Your task to perform on an android device: Open Chrome and go to the settings page Image 0: 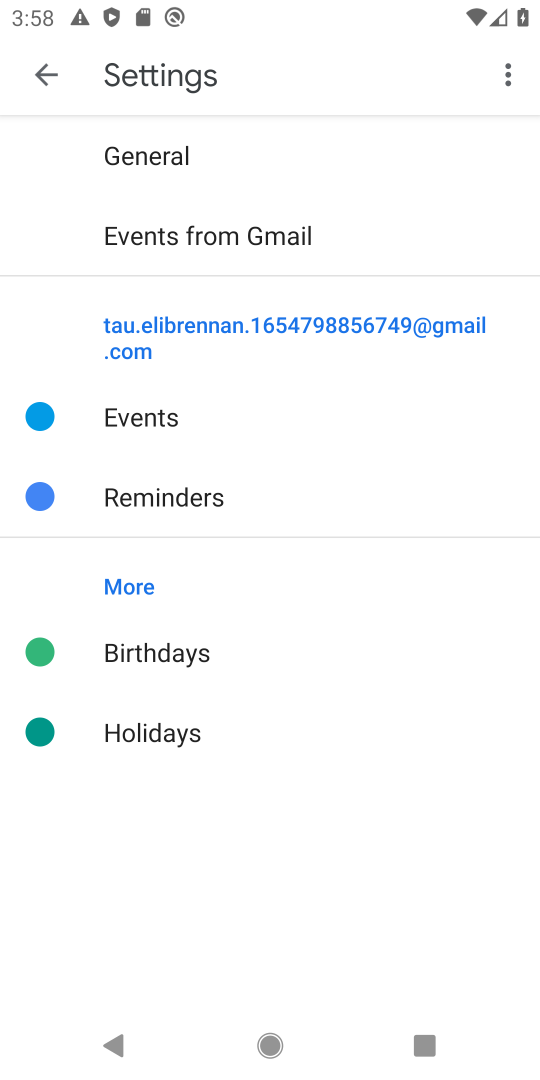
Step 0: press home button
Your task to perform on an android device: Open Chrome and go to the settings page Image 1: 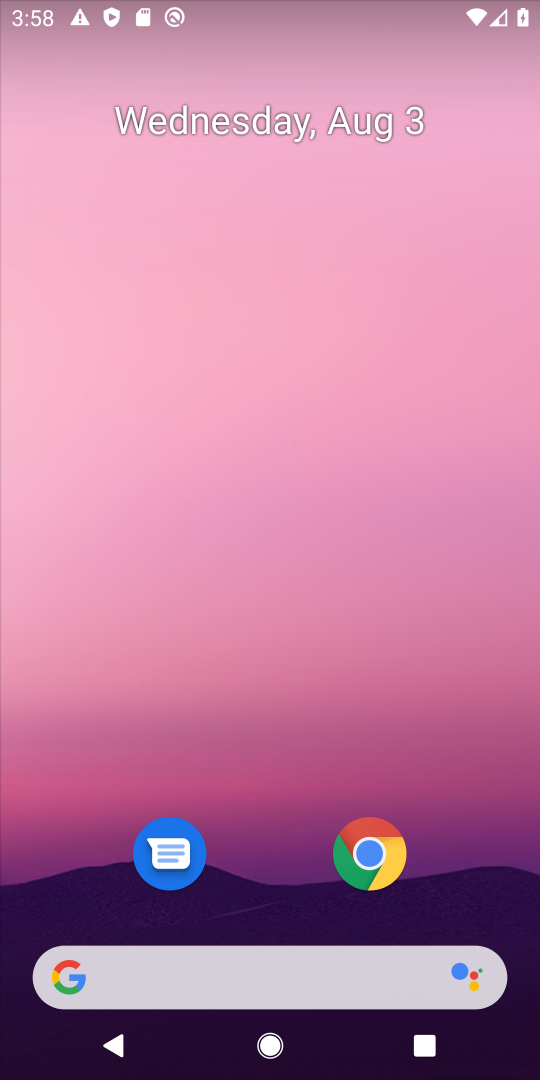
Step 1: click (368, 851)
Your task to perform on an android device: Open Chrome and go to the settings page Image 2: 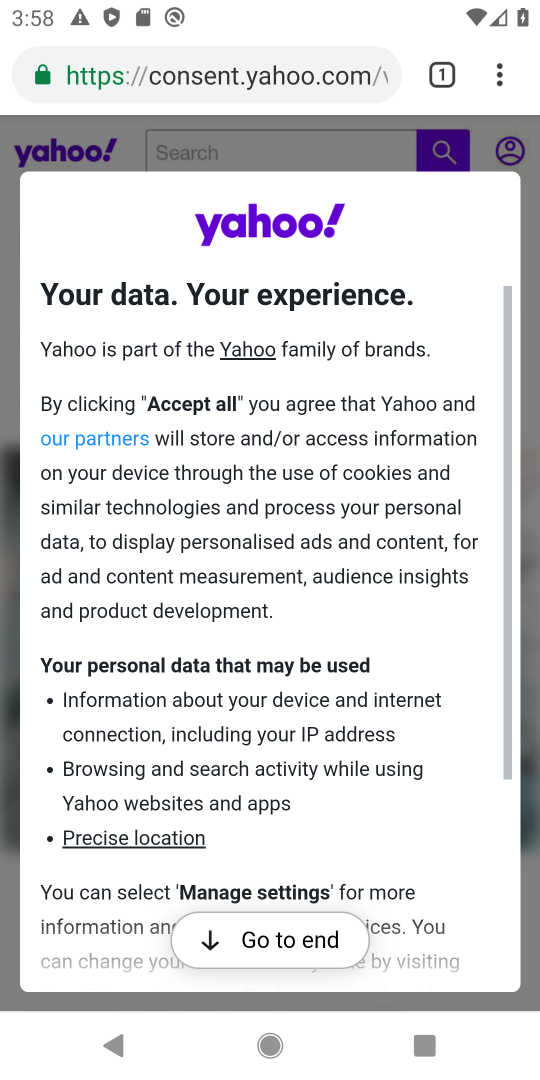
Step 2: click (501, 84)
Your task to perform on an android device: Open Chrome and go to the settings page Image 3: 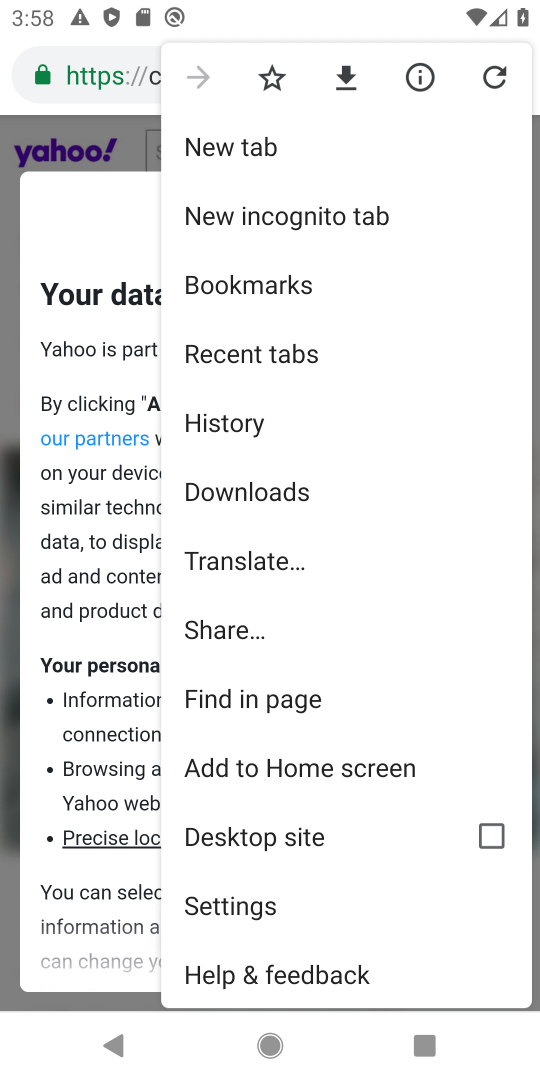
Step 3: click (247, 899)
Your task to perform on an android device: Open Chrome and go to the settings page Image 4: 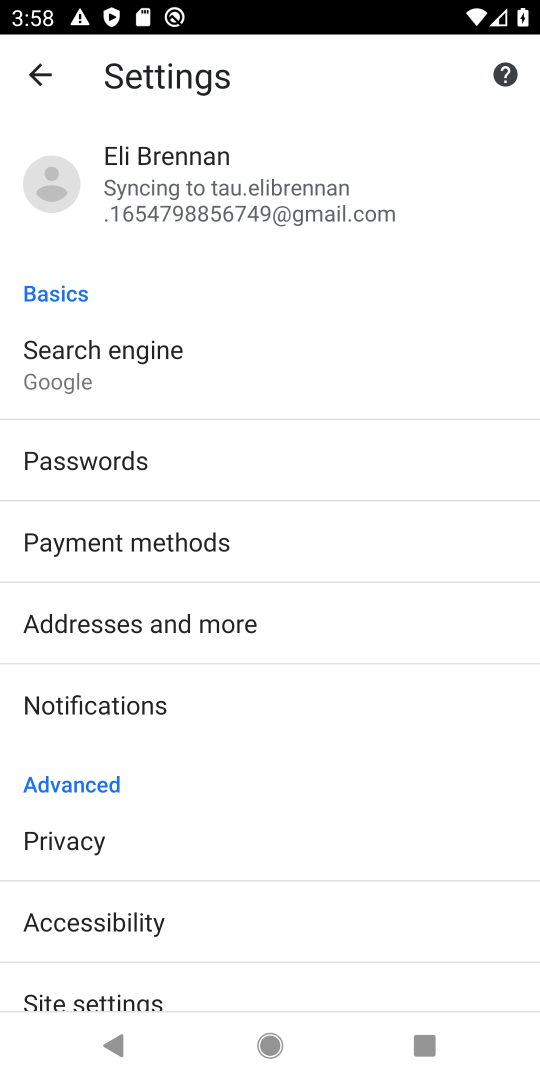
Step 4: task complete